Your task to perform on an android device: Go to privacy settings Image 0: 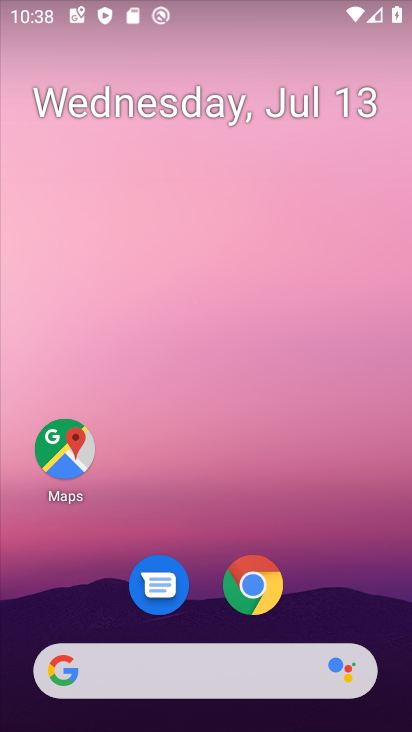
Step 0: drag from (334, 585) to (293, 91)
Your task to perform on an android device: Go to privacy settings Image 1: 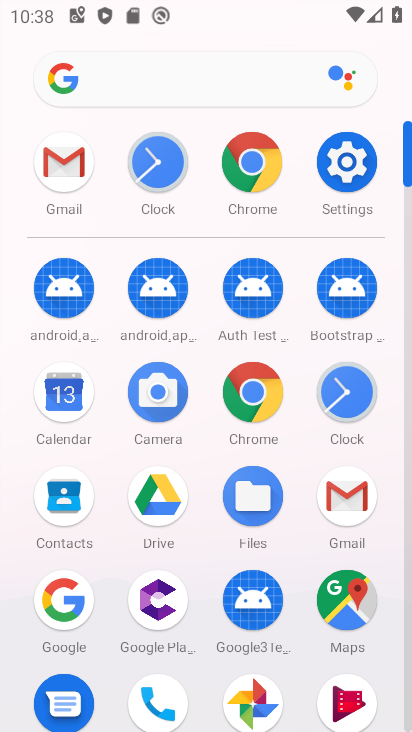
Step 1: click (356, 166)
Your task to perform on an android device: Go to privacy settings Image 2: 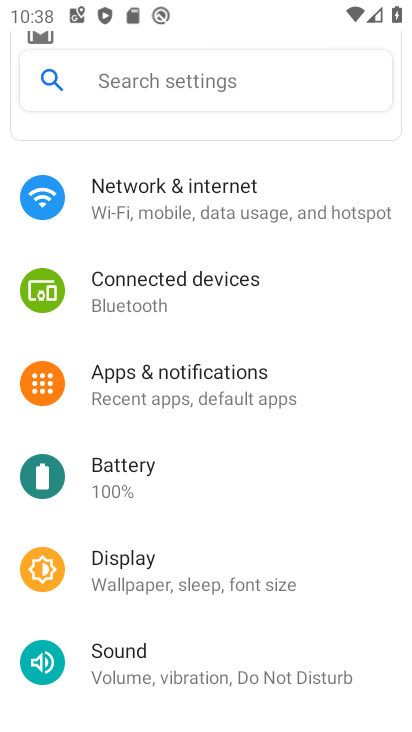
Step 2: drag from (220, 453) to (209, 73)
Your task to perform on an android device: Go to privacy settings Image 3: 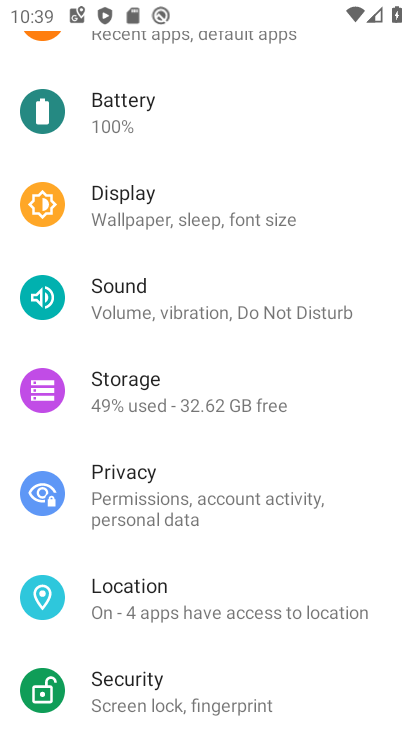
Step 3: click (143, 485)
Your task to perform on an android device: Go to privacy settings Image 4: 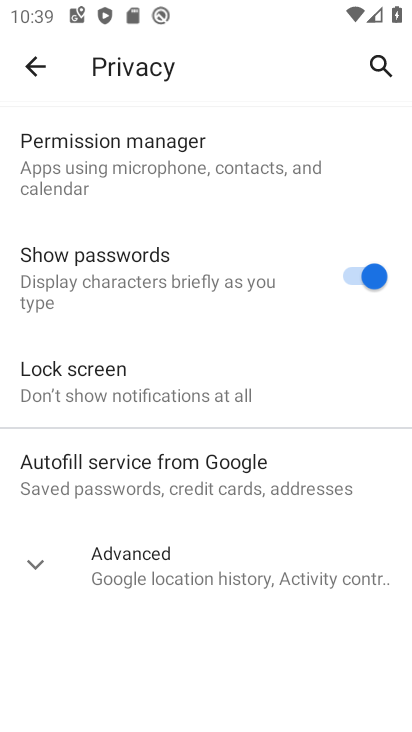
Step 4: click (42, 565)
Your task to perform on an android device: Go to privacy settings Image 5: 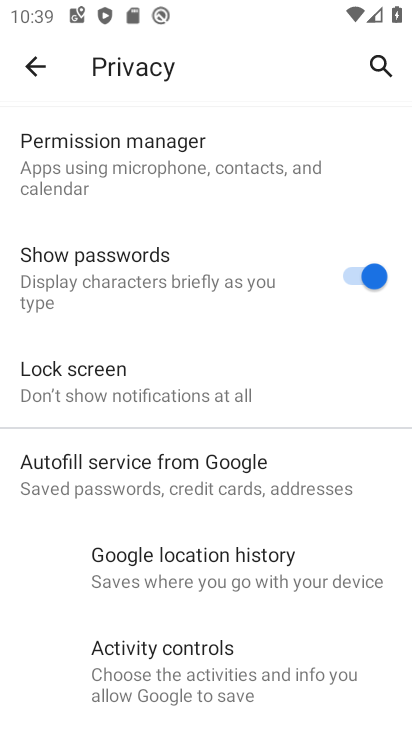
Step 5: task complete